Your task to perform on an android device: Play the last video I watched on Youtube Image 0: 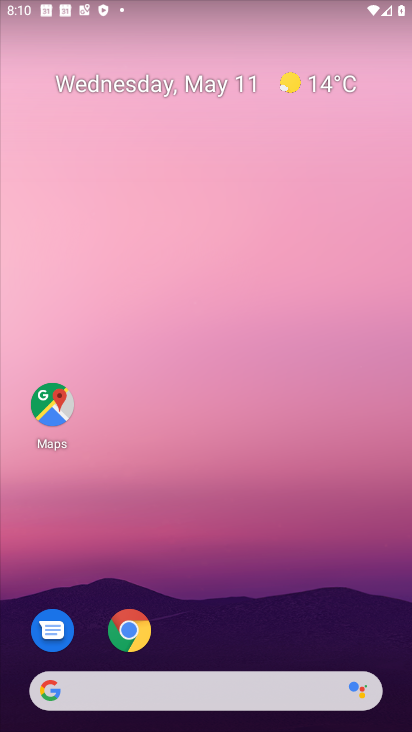
Step 0: drag from (216, 651) to (153, 134)
Your task to perform on an android device: Play the last video I watched on Youtube Image 1: 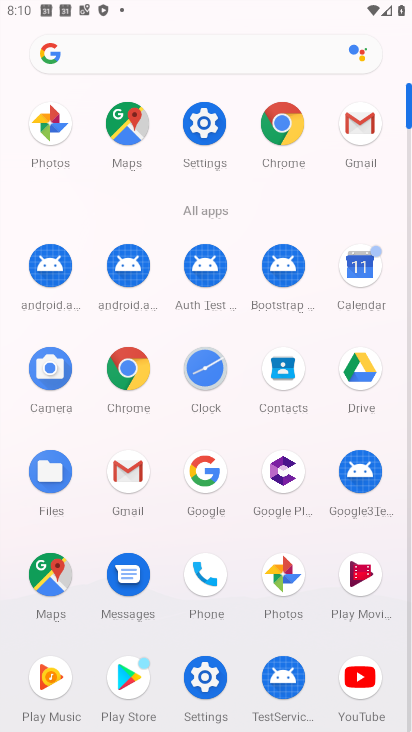
Step 1: click (355, 671)
Your task to perform on an android device: Play the last video I watched on Youtube Image 2: 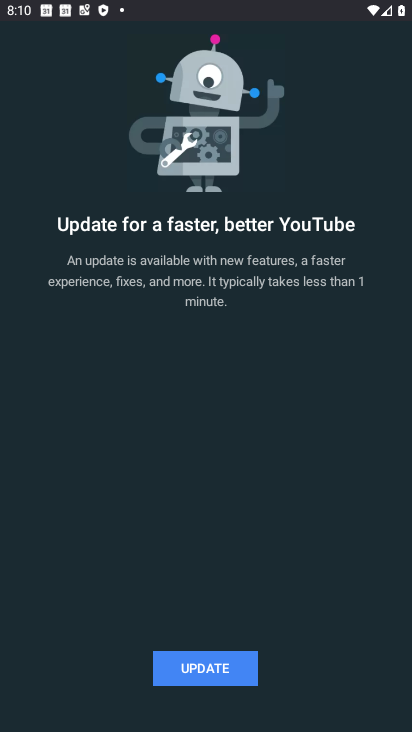
Step 2: click (233, 668)
Your task to perform on an android device: Play the last video I watched on Youtube Image 3: 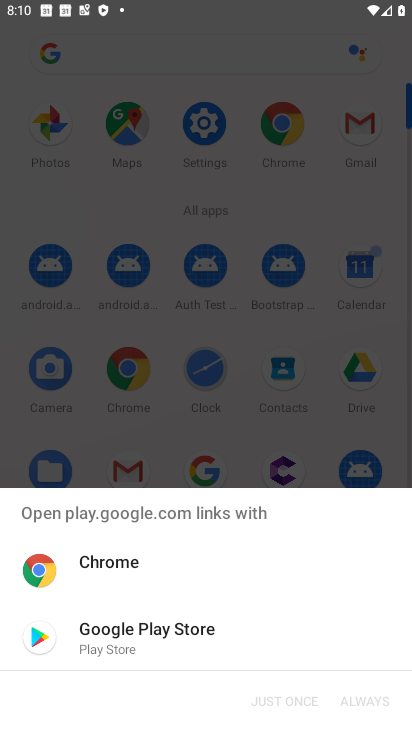
Step 3: click (300, 650)
Your task to perform on an android device: Play the last video I watched on Youtube Image 4: 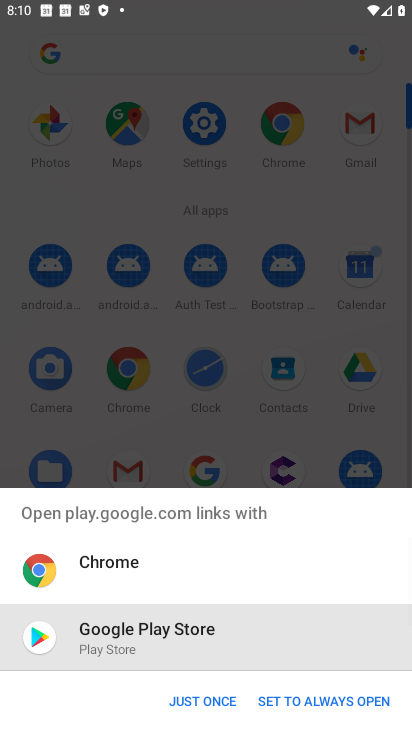
Step 4: click (197, 686)
Your task to perform on an android device: Play the last video I watched on Youtube Image 5: 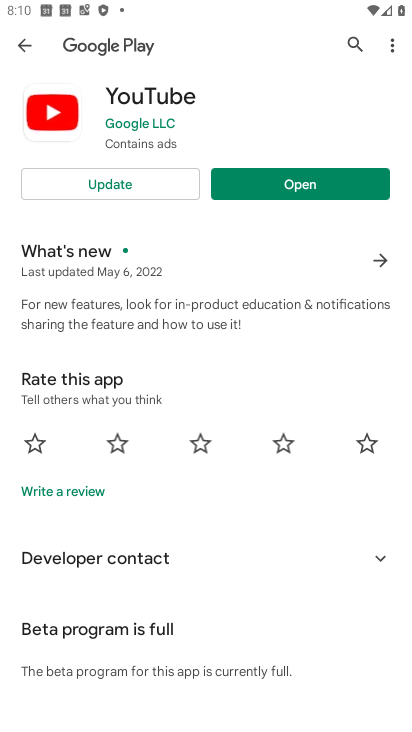
Step 5: click (134, 188)
Your task to perform on an android device: Play the last video I watched on Youtube Image 6: 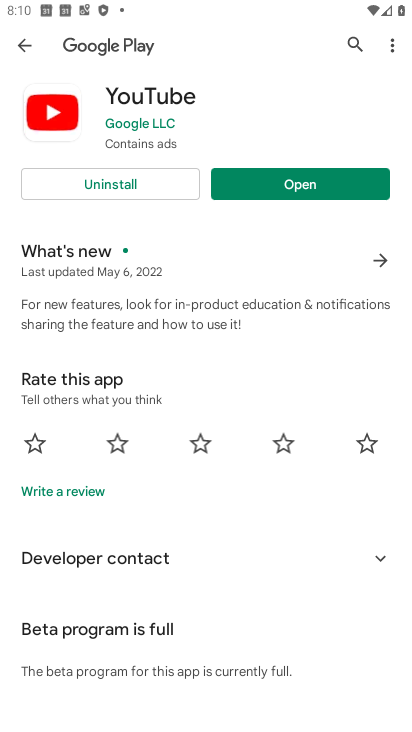
Step 6: click (279, 170)
Your task to perform on an android device: Play the last video I watched on Youtube Image 7: 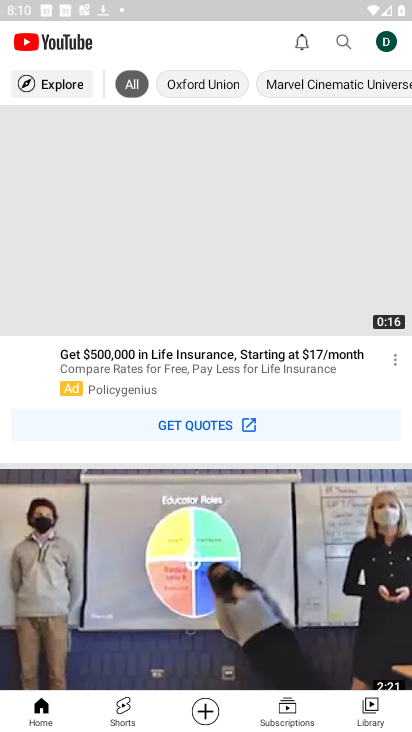
Step 7: click (370, 698)
Your task to perform on an android device: Play the last video I watched on Youtube Image 8: 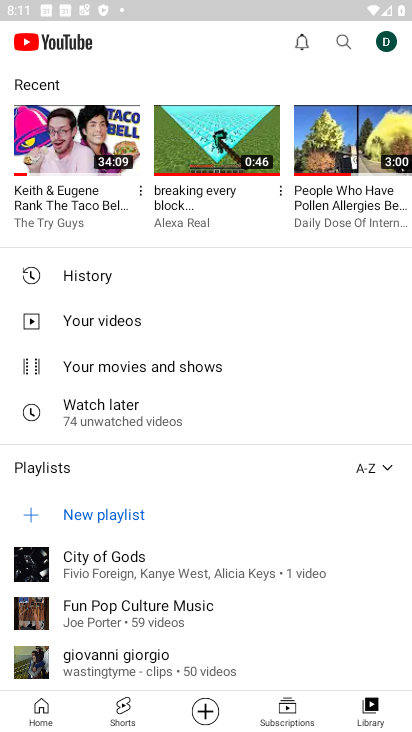
Step 8: click (87, 280)
Your task to perform on an android device: Play the last video I watched on Youtube Image 9: 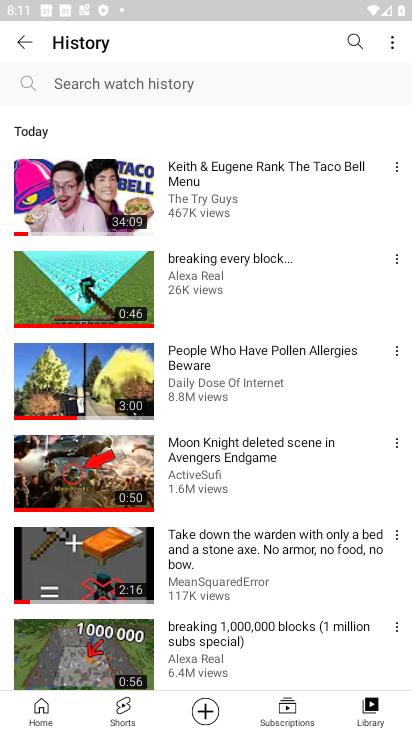
Step 9: click (132, 164)
Your task to perform on an android device: Play the last video I watched on Youtube Image 10: 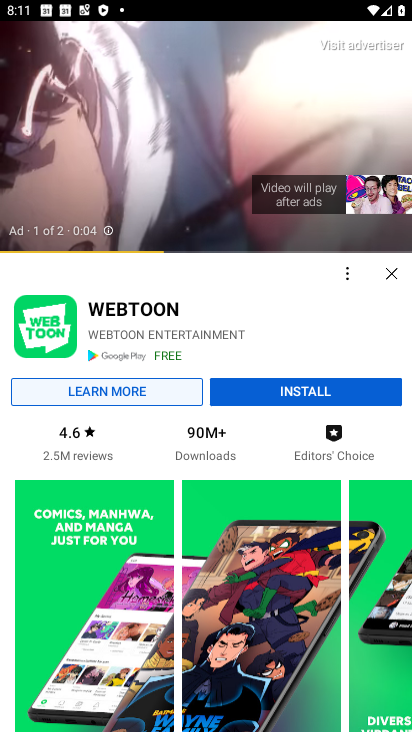
Step 10: click (201, 137)
Your task to perform on an android device: Play the last video I watched on Youtube Image 11: 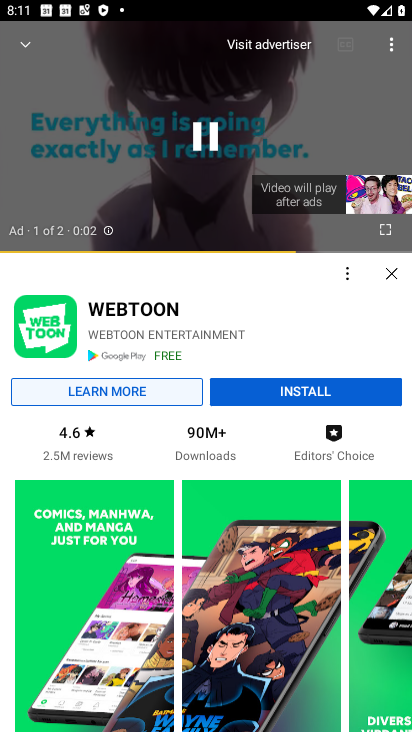
Step 11: click (201, 137)
Your task to perform on an android device: Play the last video I watched on Youtube Image 12: 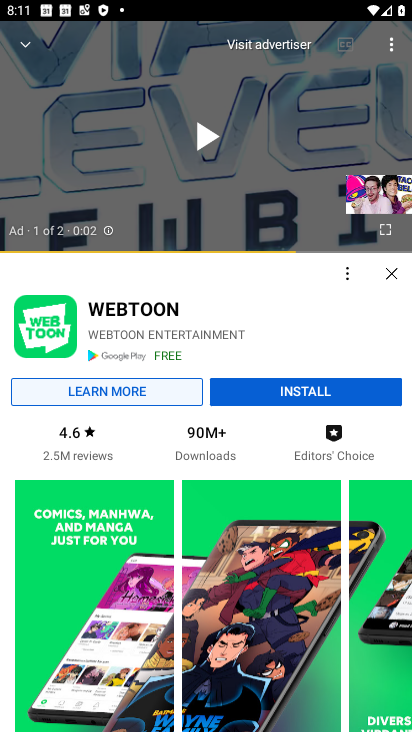
Step 12: task complete